Your task to perform on an android device: turn on showing notifications on the lock screen Image 0: 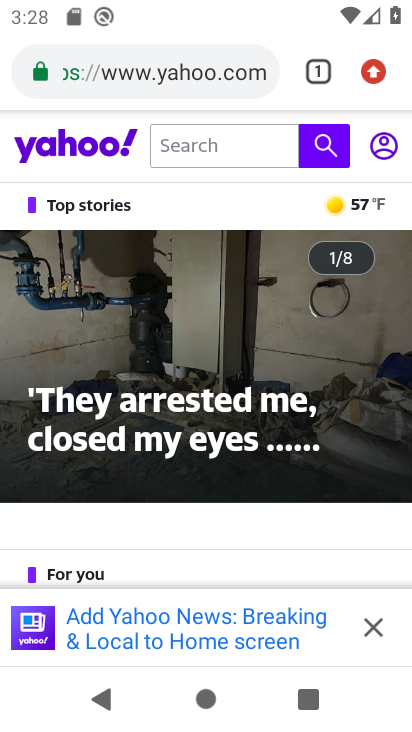
Step 0: press home button
Your task to perform on an android device: turn on showing notifications on the lock screen Image 1: 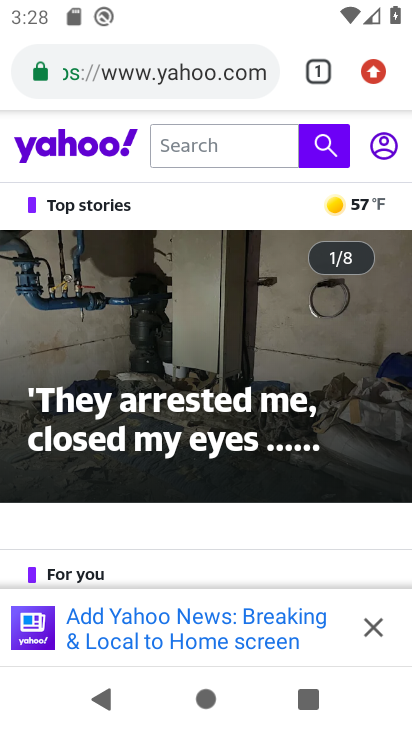
Step 1: press home button
Your task to perform on an android device: turn on showing notifications on the lock screen Image 2: 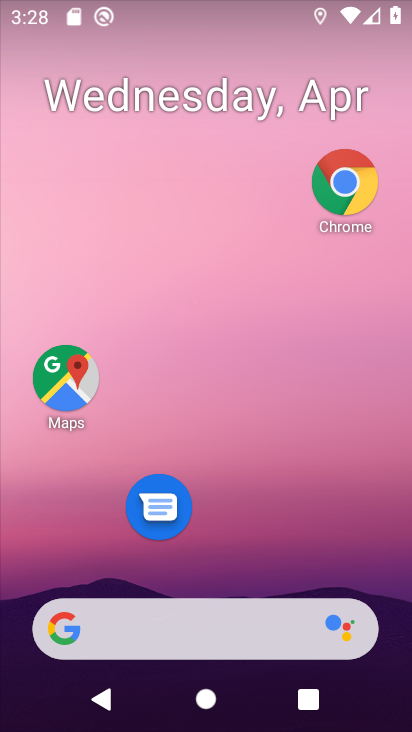
Step 2: drag from (209, 488) to (294, 0)
Your task to perform on an android device: turn on showing notifications on the lock screen Image 3: 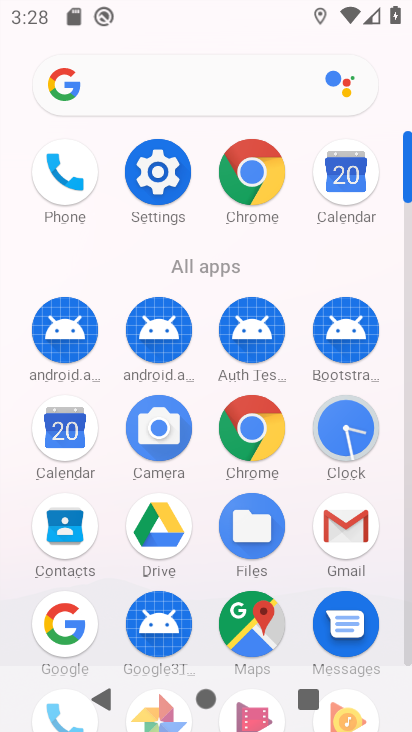
Step 3: click (161, 193)
Your task to perform on an android device: turn on showing notifications on the lock screen Image 4: 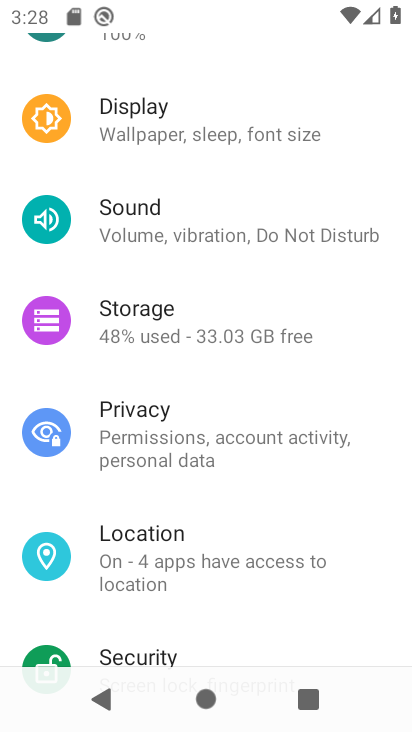
Step 4: drag from (172, 186) to (130, 615)
Your task to perform on an android device: turn on showing notifications on the lock screen Image 5: 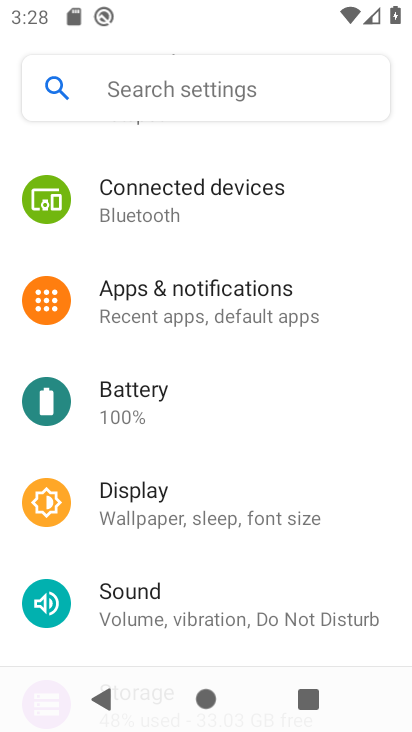
Step 5: click (193, 300)
Your task to perform on an android device: turn on showing notifications on the lock screen Image 6: 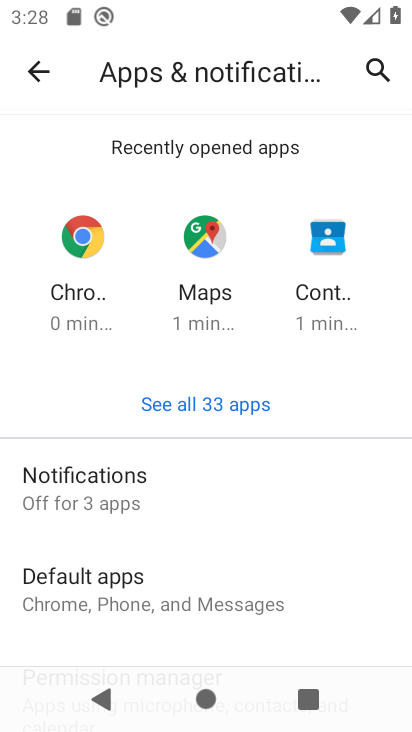
Step 6: click (105, 489)
Your task to perform on an android device: turn on showing notifications on the lock screen Image 7: 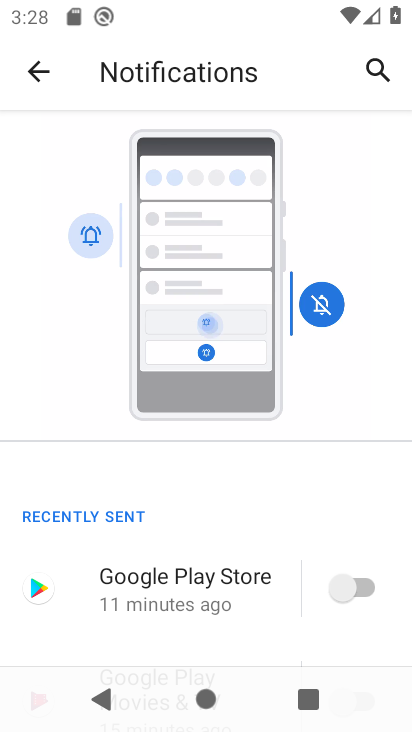
Step 7: drag from (147, 566) to (157, 140)
Your task to perform on an android device: turn on showing notifications on the lock screen Image 8: 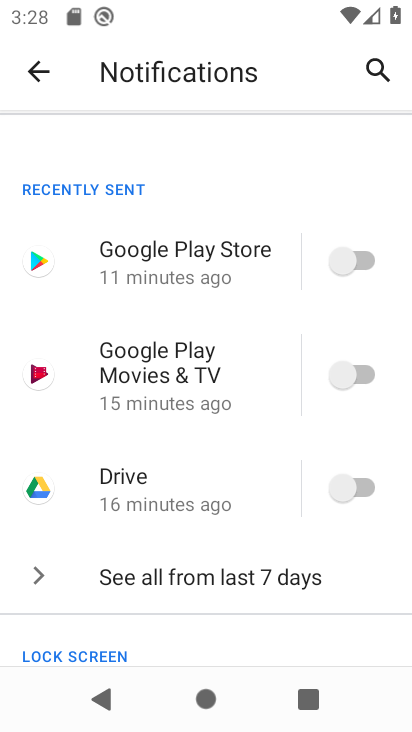
Step 8: drag from (155, 520) to (186, 136)
Your task to perform on an android device: turn on showing notifications on the lock screen Image 9: 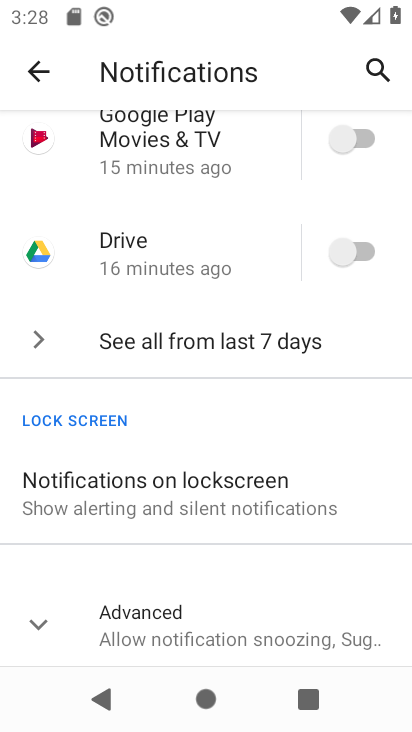
Step 9: click (143, 504)
Your task to perform on an android device: turn on showing notifications on the lock screen Image 10: 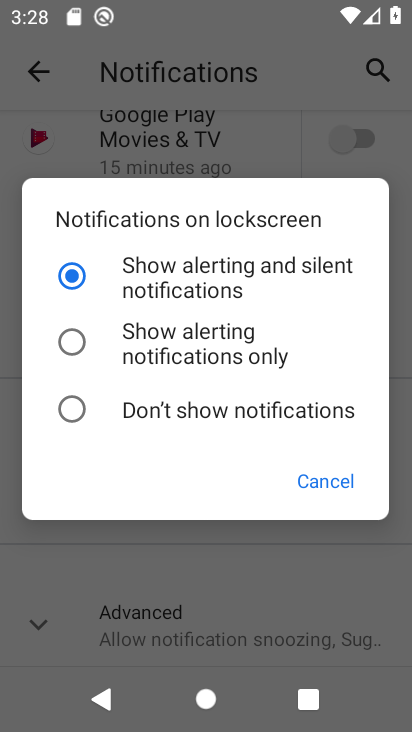
Step 10: task complete